Your task to perform on an android device: refresh tabs in the chrome app Image 0: 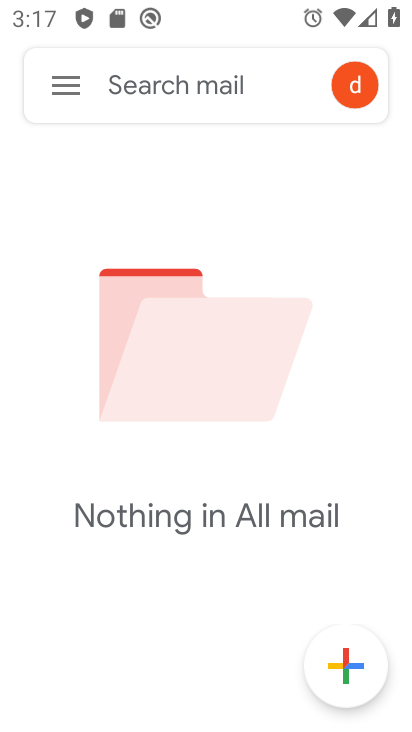
Step 0: press home button
Your task to perform on an android device: refresh tabs in the chrome app Image 1: 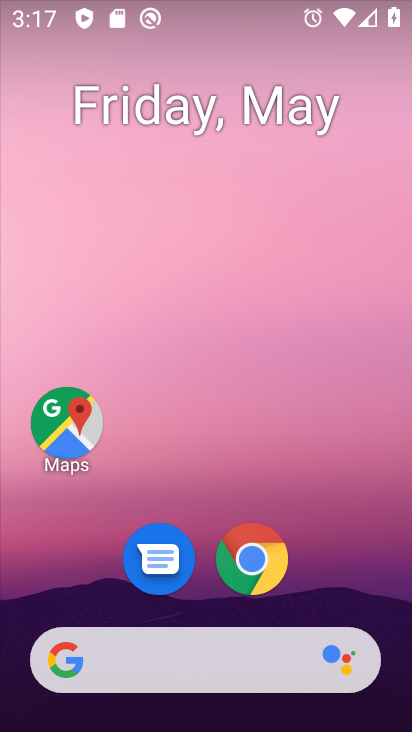
Step 1: click (257, 565)
Your task to perform on an android device: refresh tabs in the chrome app Image 2: 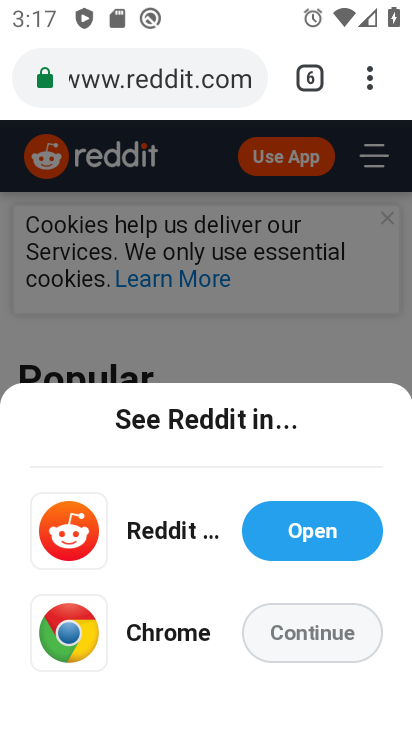
Step 2: click (386, 84)
Your task to perform on an android device: refresh tabs in the chrome app Image 3: 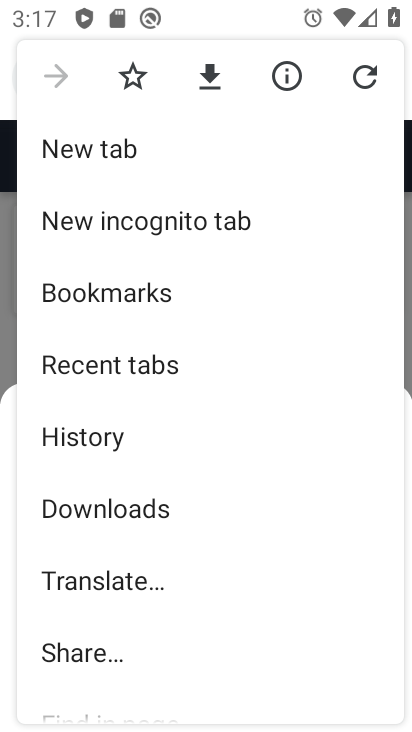
Step 3: click (374, 74)
Your task to perform on an android device: refresh tabs in the chrome app Image 4: 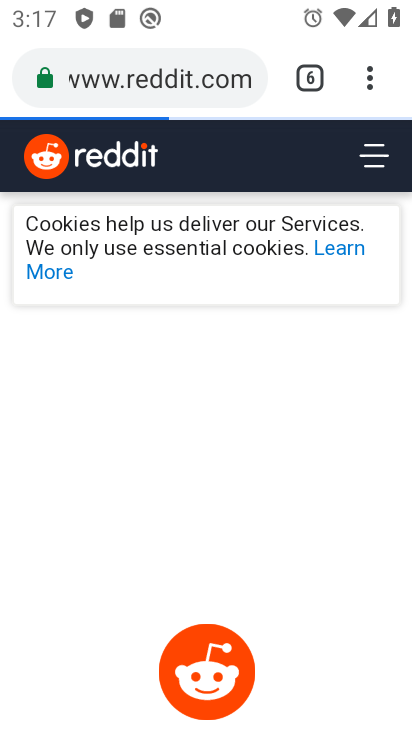
Step 4: task complete